Your task to perform on an android device: turn off airplane mode Image 0: 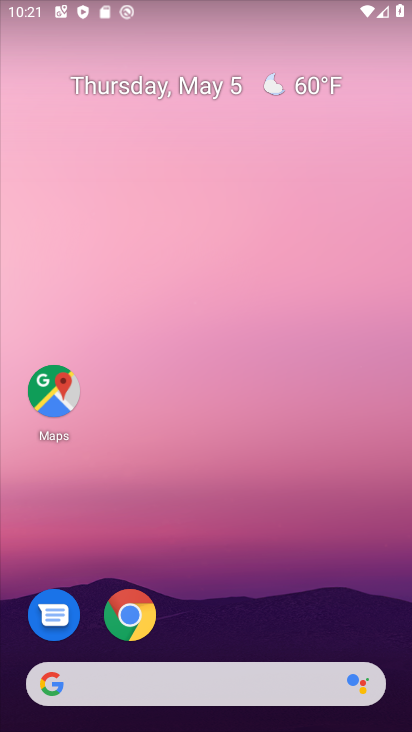
Step 0: drag from (220, 614) to (242, 110)
Your task to perform on an android device: turn off airplane mode Image 1: 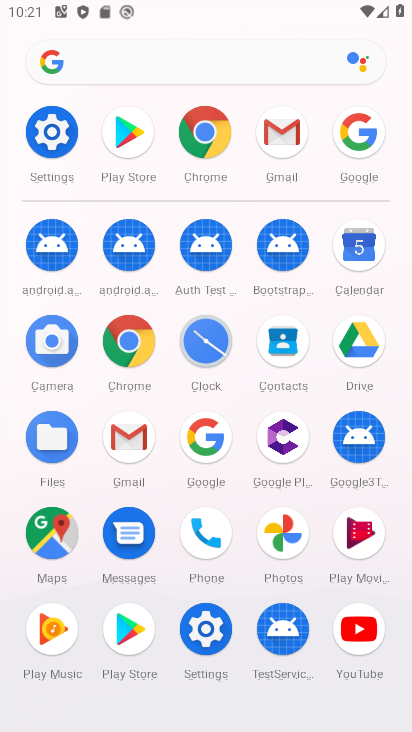
Step 1: click (54, 129)
Your task to perform on an android device: turn off airplane mode Image 2: 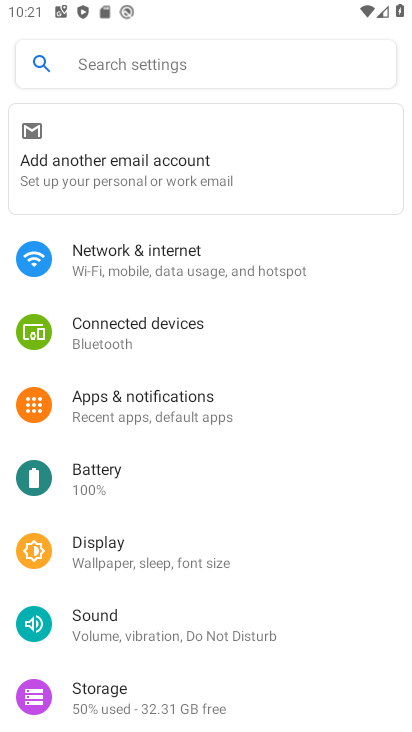
Step 2: click (179, 254)
Your task to perform on an android device: turn off airplane mode Image 3: 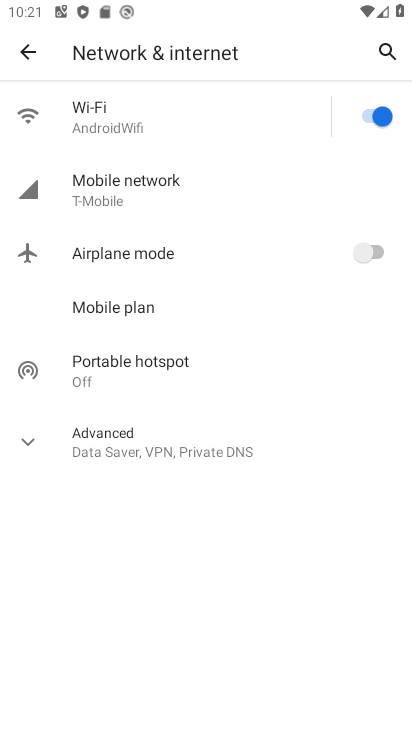
Step 3: task complete